Your task to perform on an android device: turn off sleep mode Image 0: 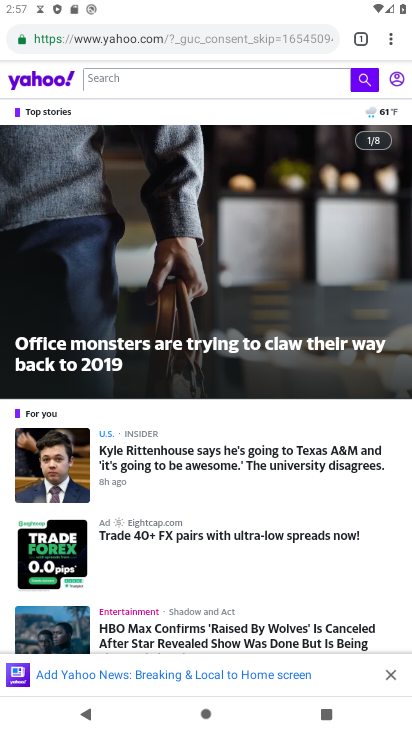
Step 0: press home button
Your task to perform on an android device: turn off sleep mode Image 1: 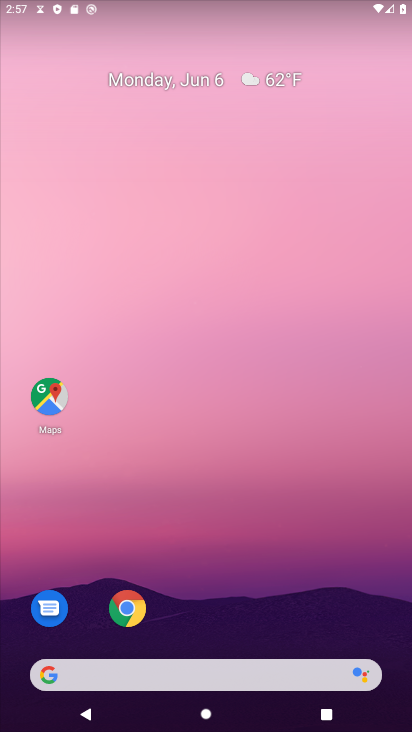
Step 1: drag from (299, 585) to (287, 7)
Your task to perform on an android device: turn off sleep mode Image 2: 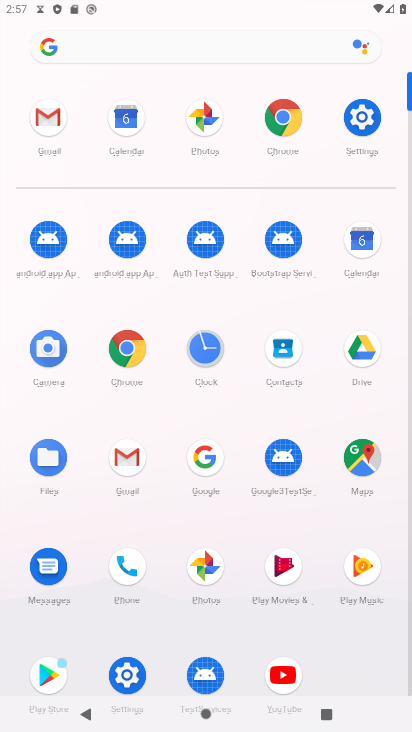
Step 2: click (360, 120)
Your task to perform on an android device: turn off sleep mode Image 3: 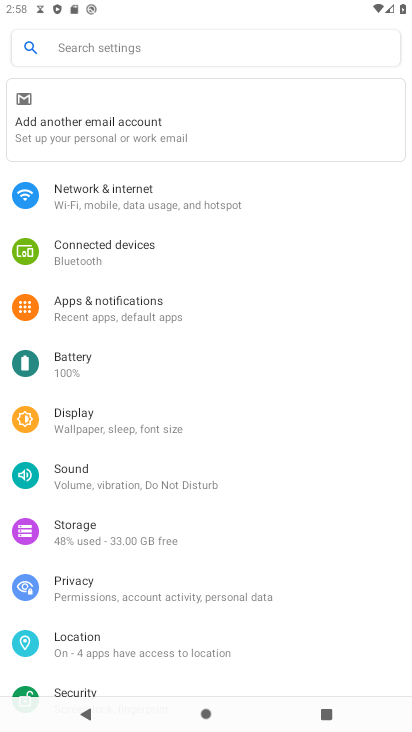
Step 3: task complete